Your task to perform on an android device: turn off sleep mode Image 0: 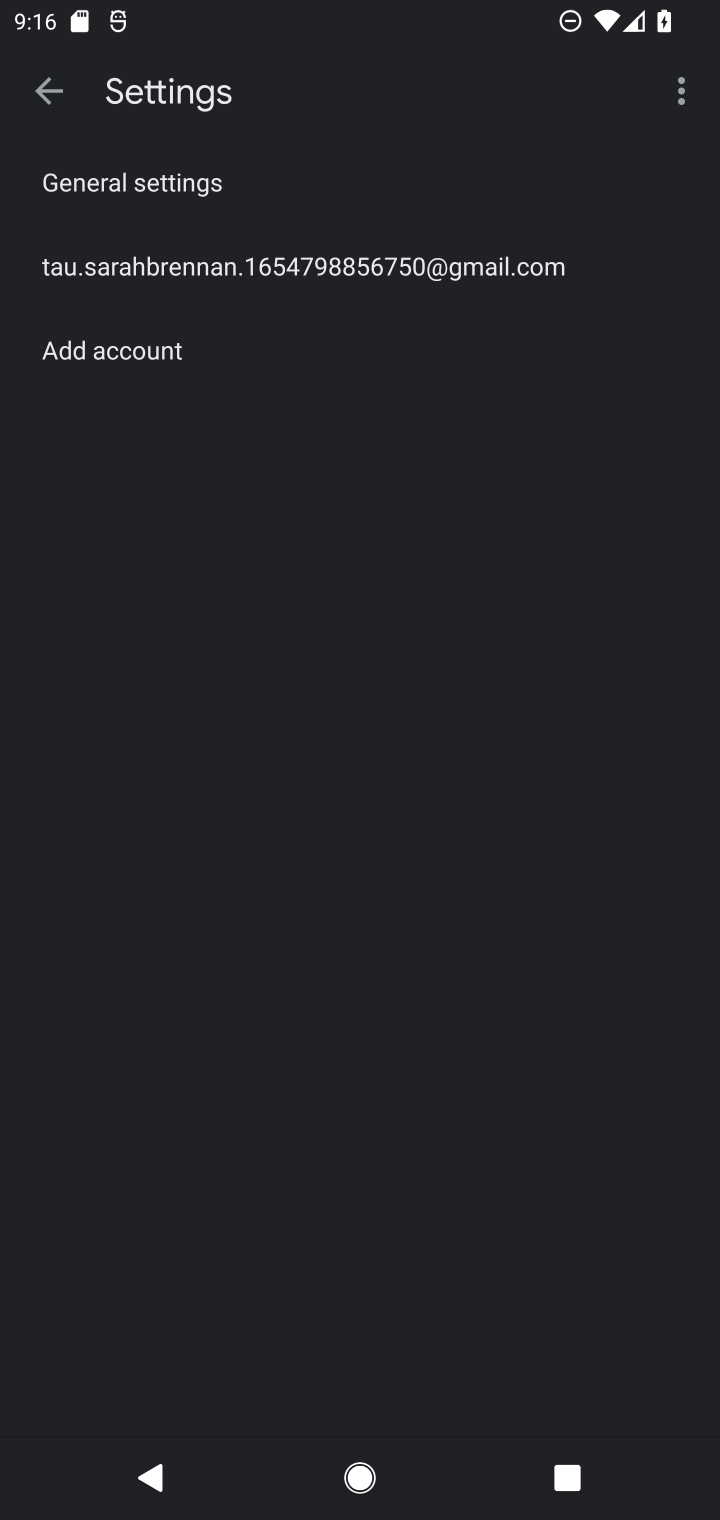
Step 0: press home button
Your task to perform on an android device: turn off sleep mode Image 1: 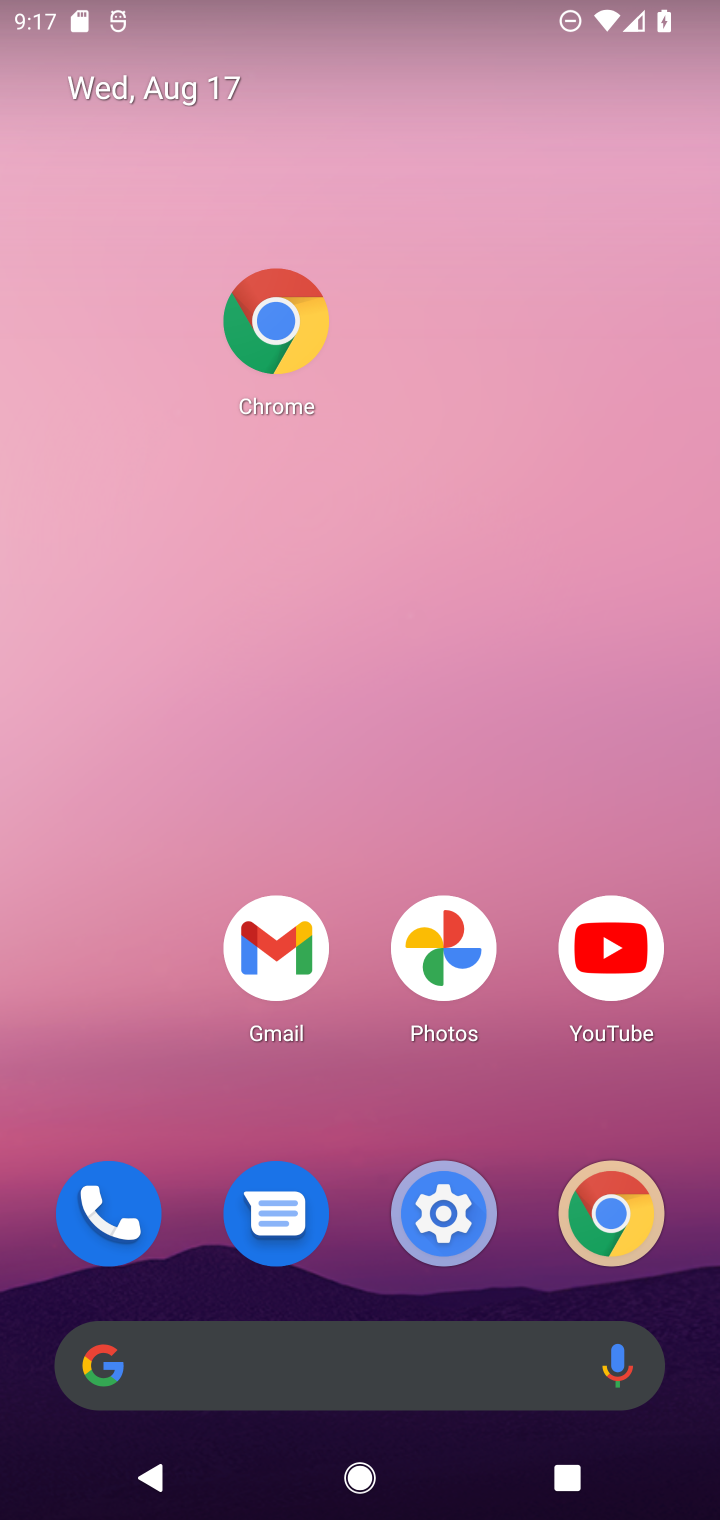
Step 1: click (467, 1233)
Your task to perform on an android device: turn off sleep mode Image 2: 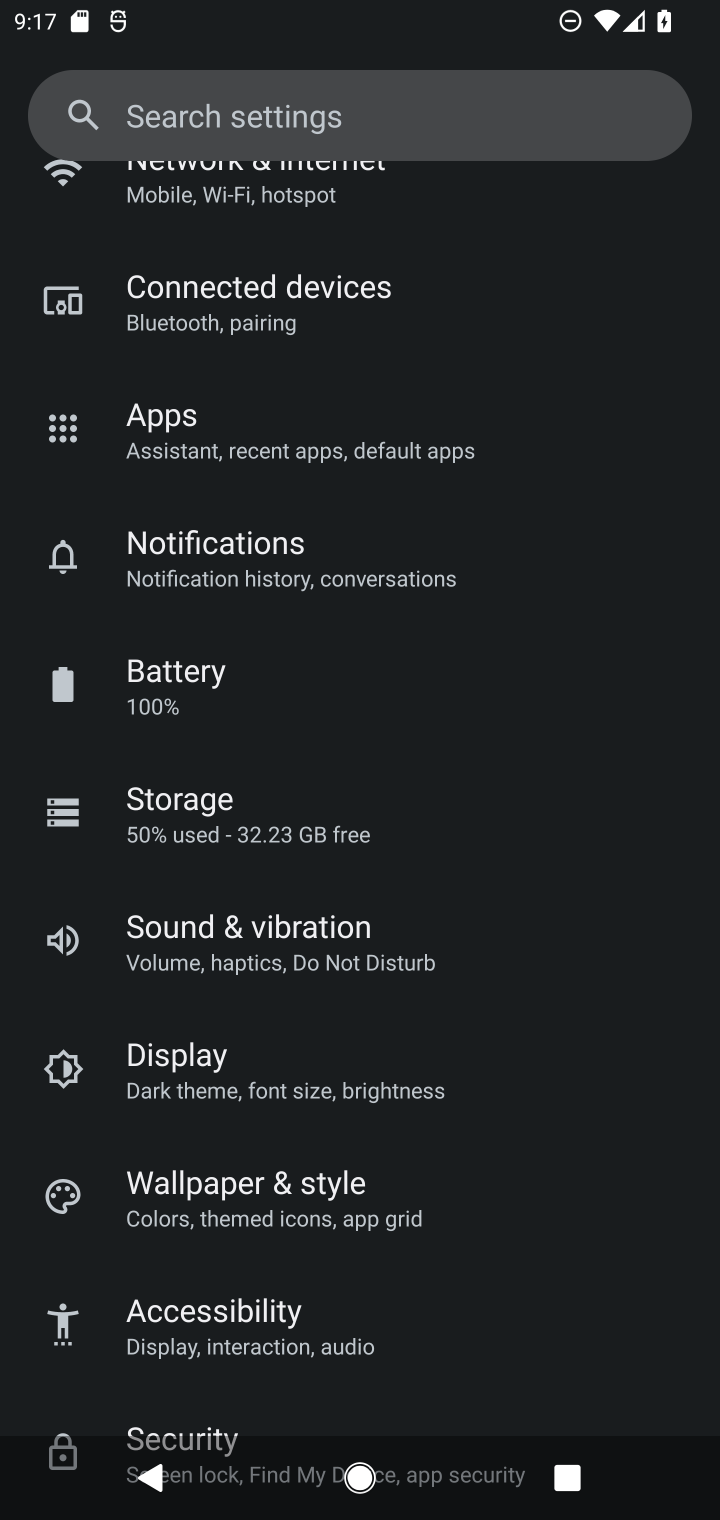
Step 2: task complete